Your task to perform on an android device: Open Youtube and go to the subscriptions tab Image 0: 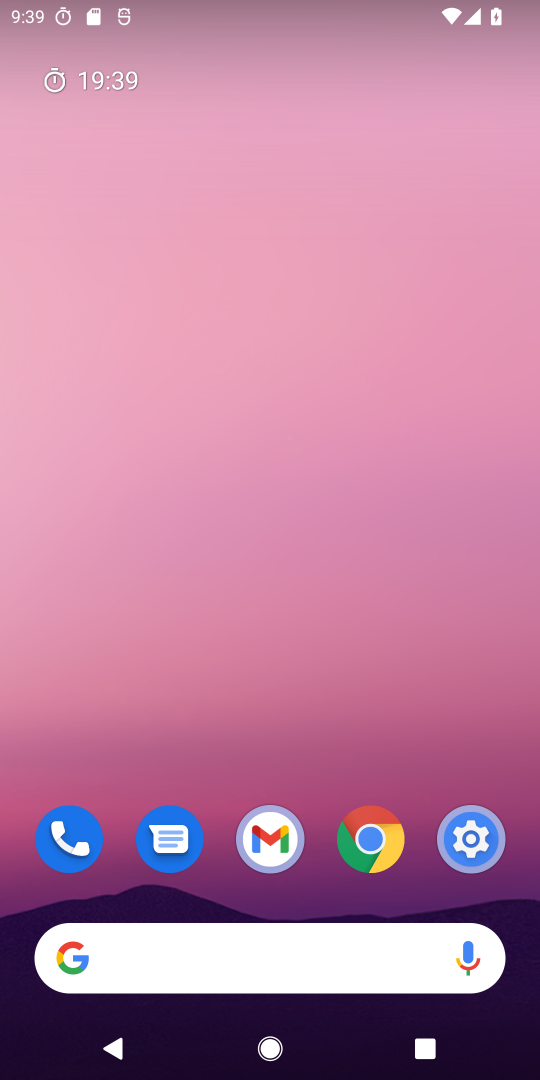
Step 0: press home button
Your task to perform on an android device: Open Youtube and go to the subscriptions tab Image 1: 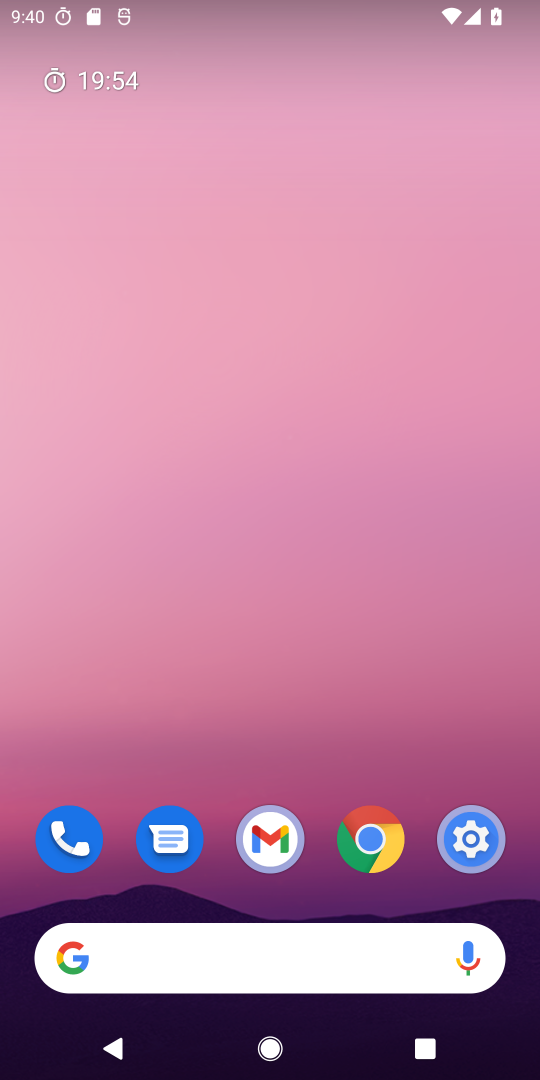
Step 1: drag from (320, 778) to (342, 138)
Your task to perform on an android device: Open Youtube and go to the subscriptions tab Image 2: 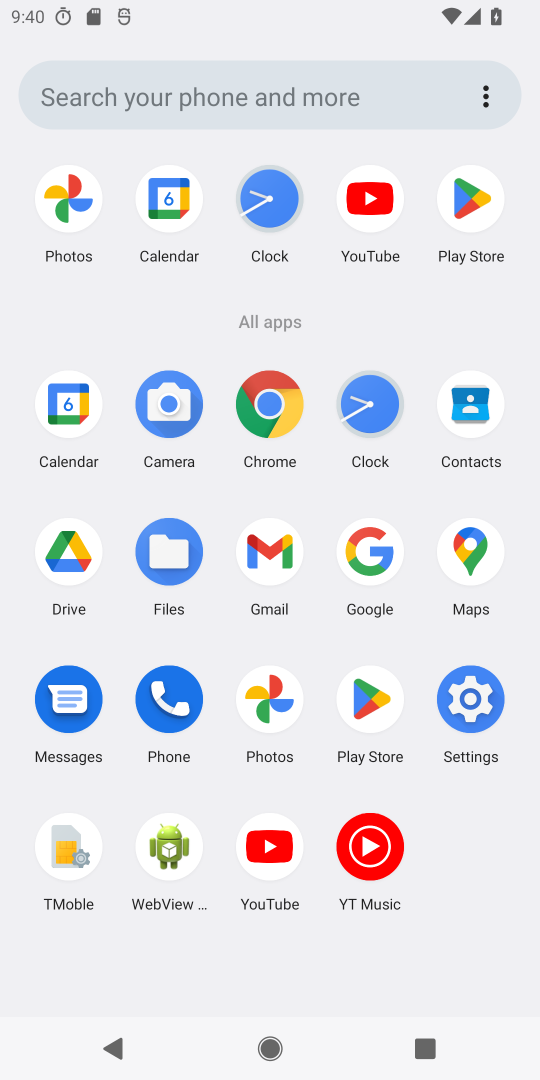
Step 2: click (269, 840)
Your task to perform on an android device: Open Youtube and go to the subscriptions tab Image 3: 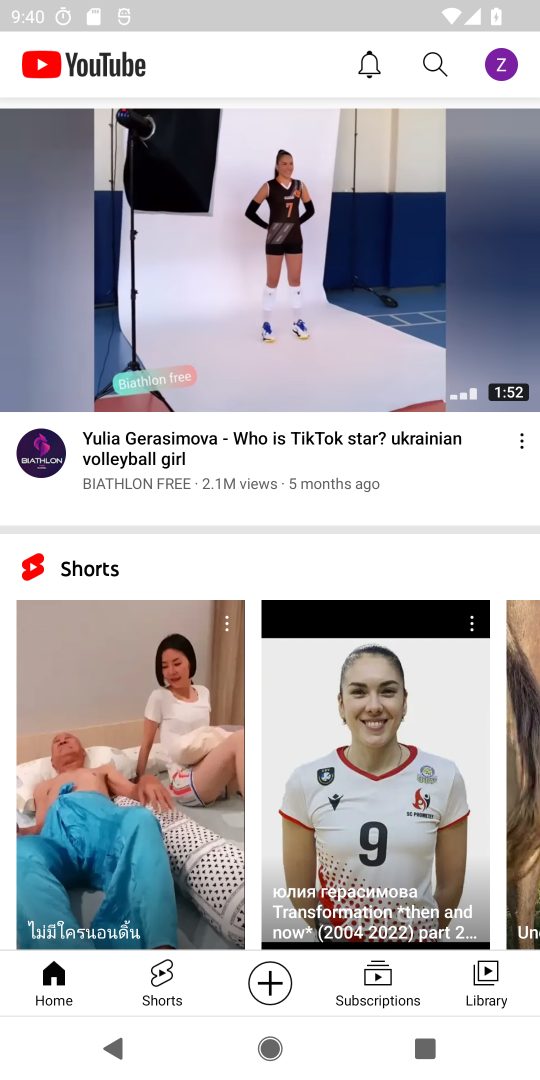
Step 3: click (376, 966)
Your task to perform on an android device: Open Youtube and go to the subscriptions tab Image 4: 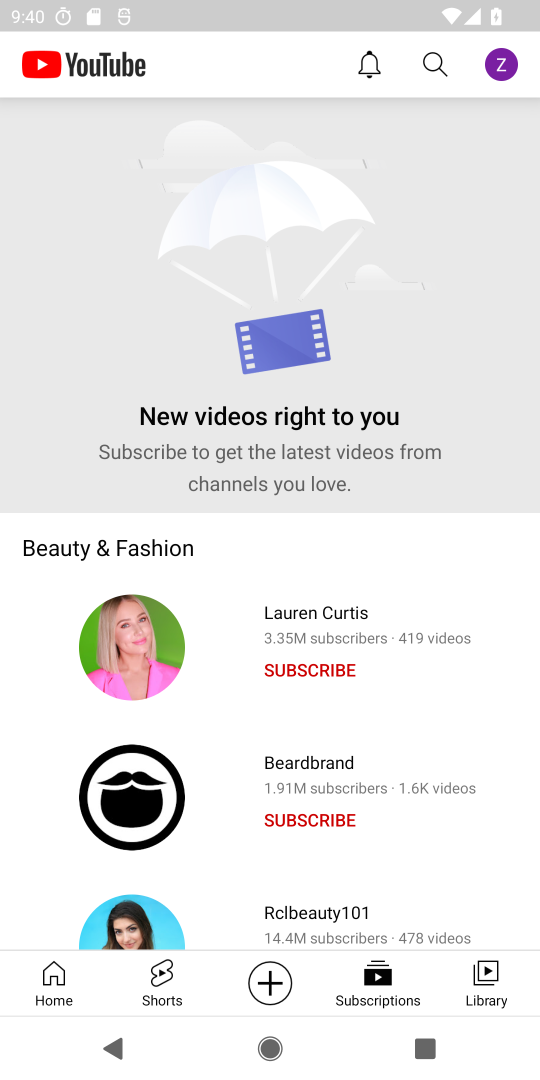
Step 4: task complete